Your task to perform on an android device: Go to CNN.com Image 0: 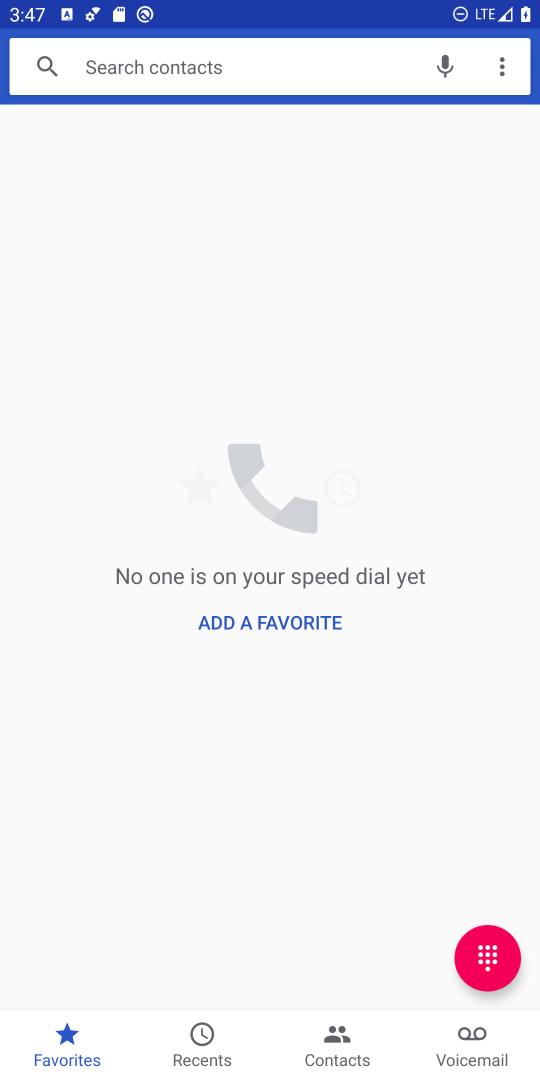
Step 0: press home button
Your task to perform on an android device: Go to CNN.com Image 1: 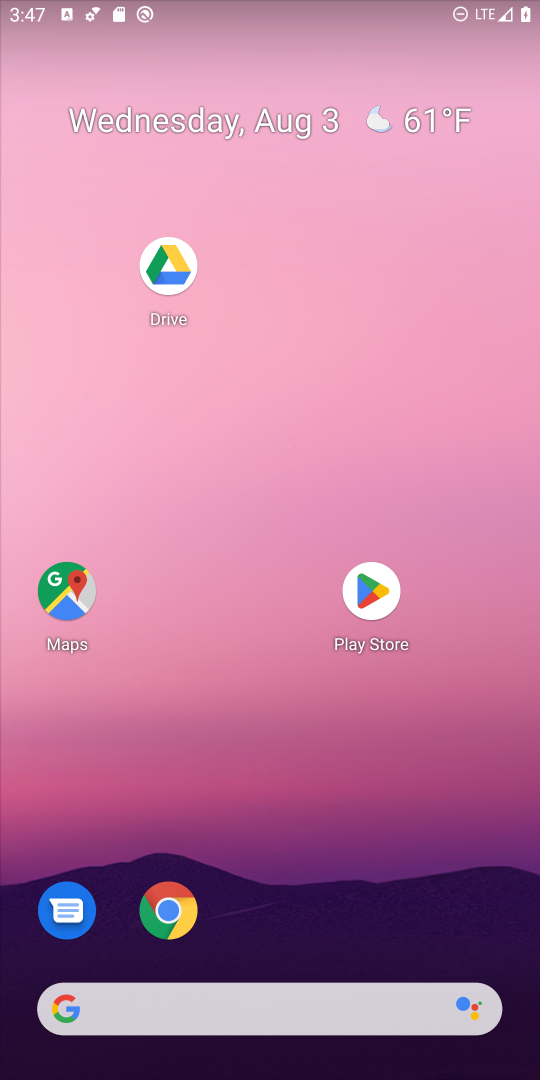
Step 1: drag from (349, 932) to (437, 70)
Your task to perform on an android device: Go to CNN.com Image 2: 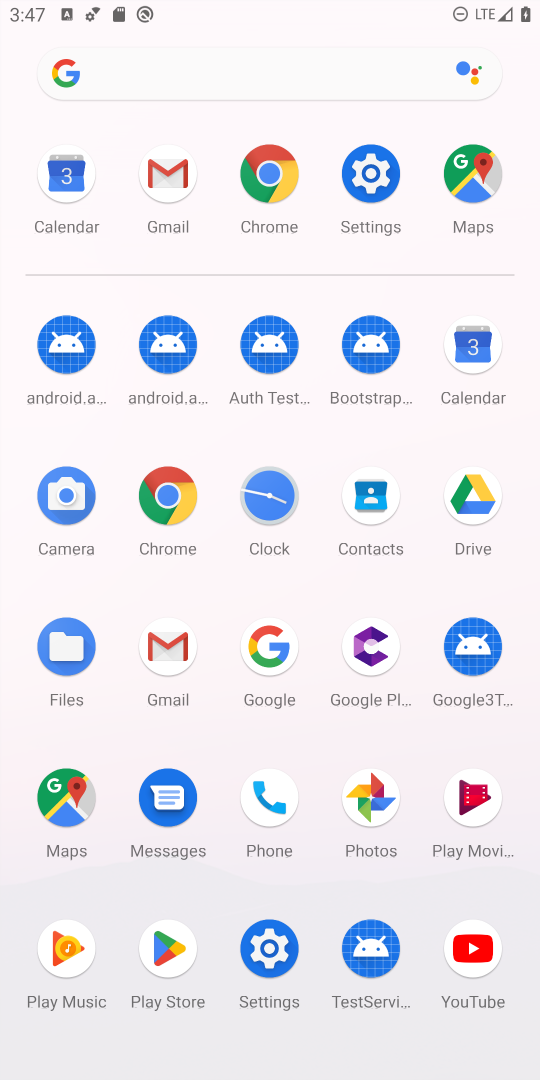
Step 2: click (165, 491)
Your task to perform on an android device: Go to CNN.com Image 3: 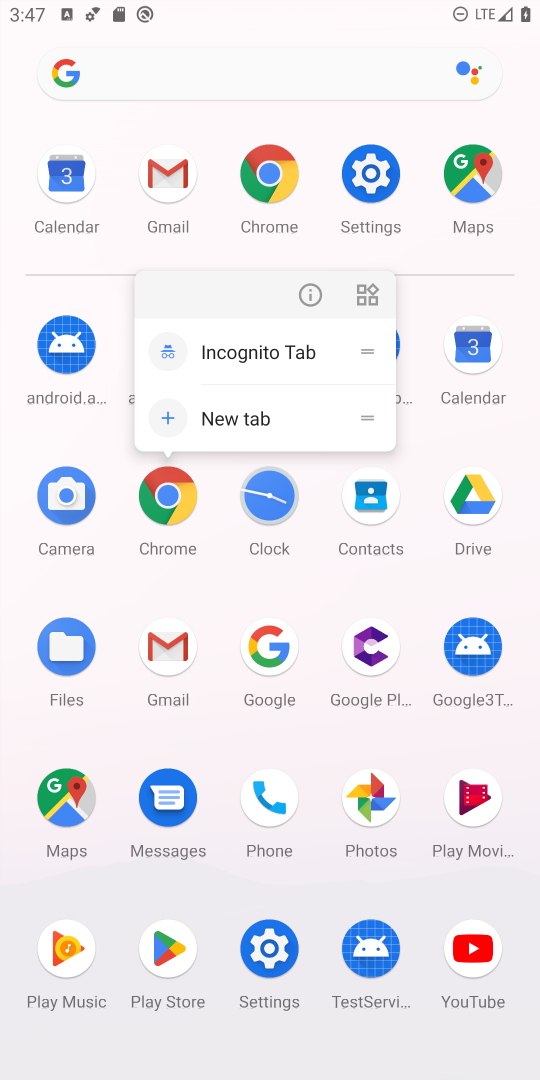
Step 3: click (166, 487)
Your task to perform on an android device: Go to CNN.com Image 4: 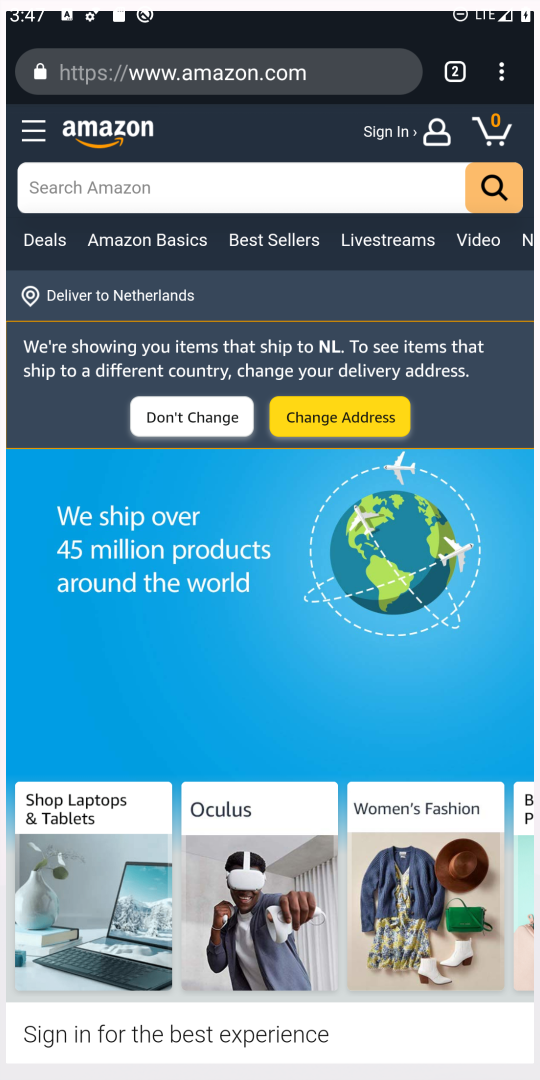
Step 4: click (171, 502)
Your task to perform on an android device: Go to CNN.com Image 5: 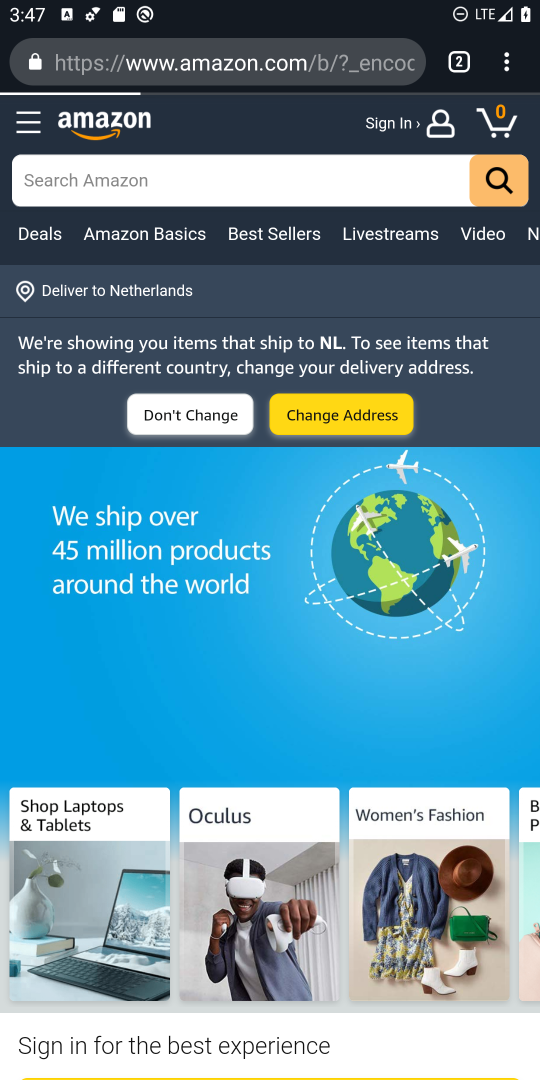
Step 5: click (384, 61)
Your task to perform on an android device: Go to CNN.com Image 6: 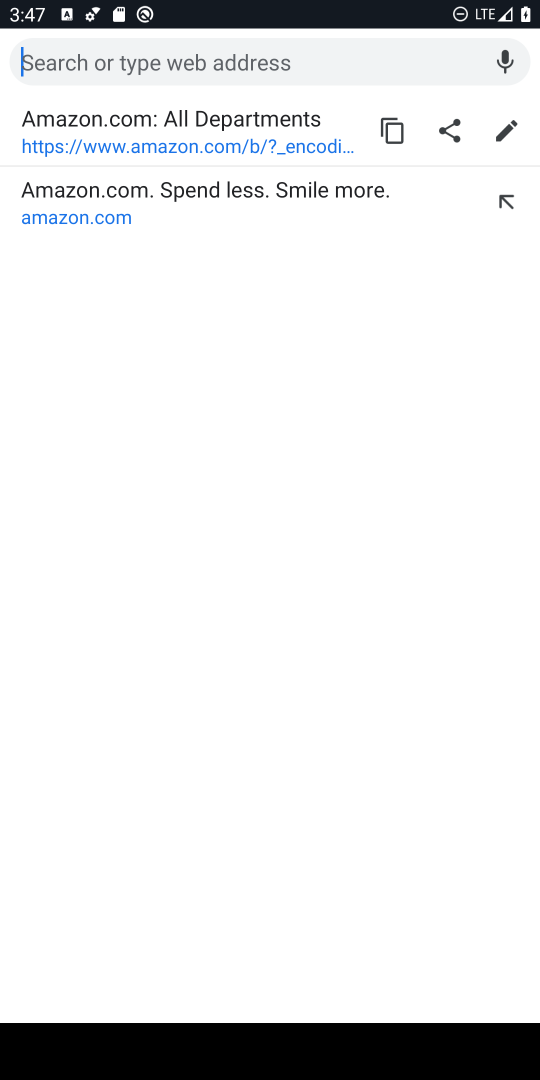
Step 6: type "cnn.com"
Your task to perform on an android device: Go to CNN.com Image 7: 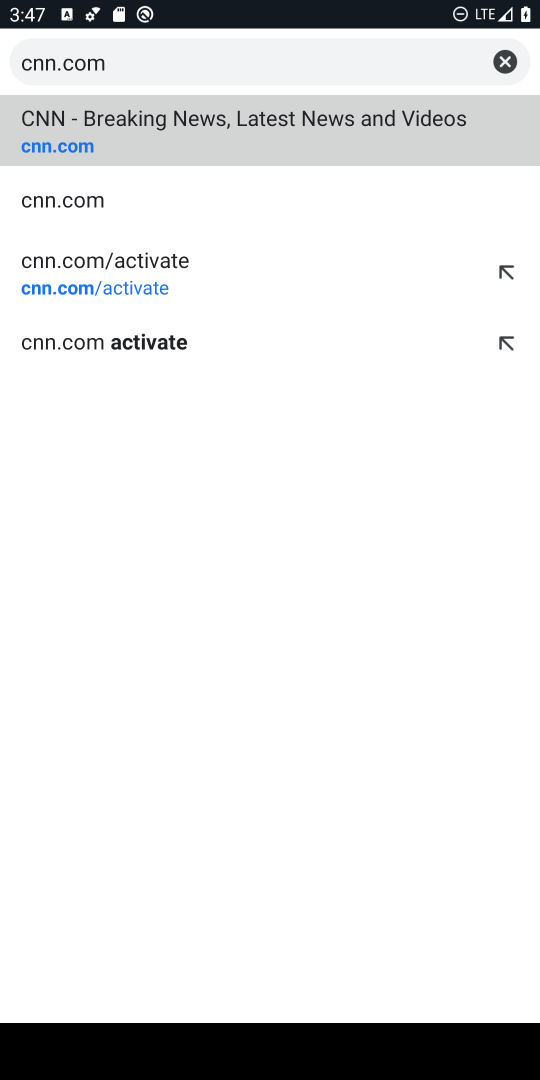
Step 7: click (438, 123)
Your task to perform on an android device: Go to CNN.com Image 8: 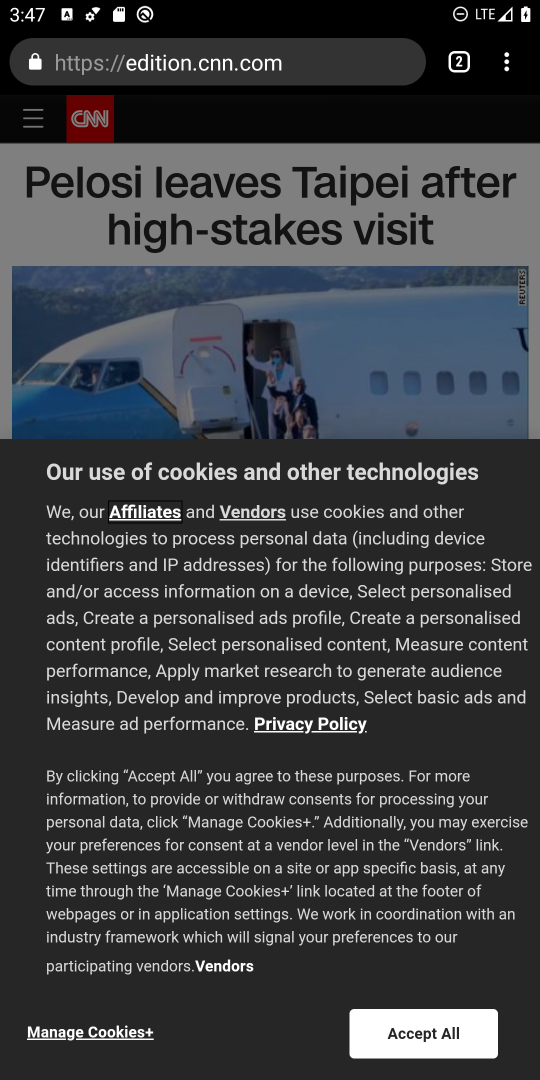
Step 8: task complete